Your task to perform on an android device: turn notification dots off Image 0: 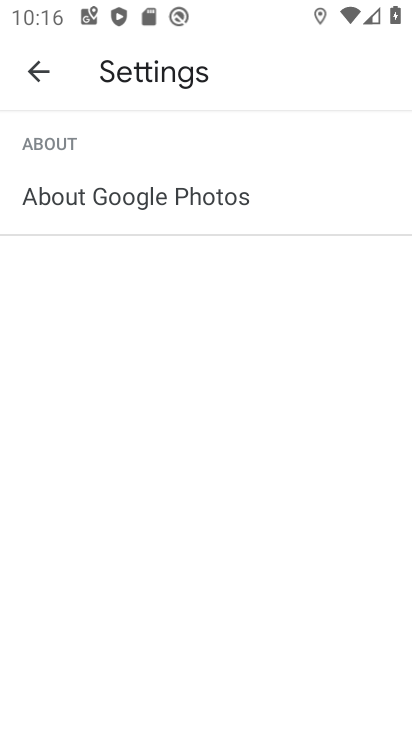
Step 0: press home button
Your task to perform on an android device: turn notification dots off Image 1: 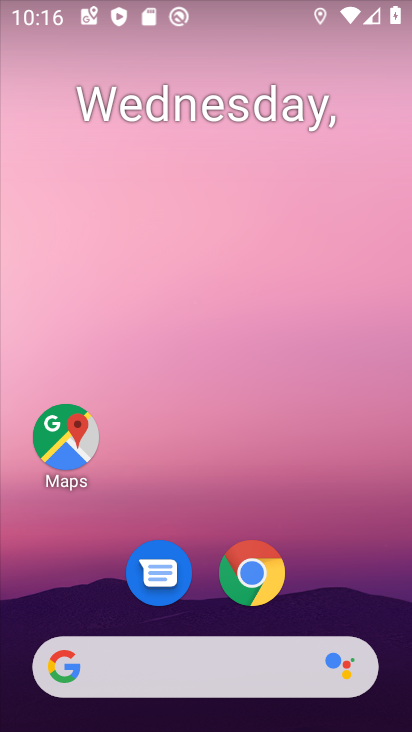
Step 1: drag from (157, 636) to (210, 164)
Your task to perform on an android device: turn notification dots off Image 2: 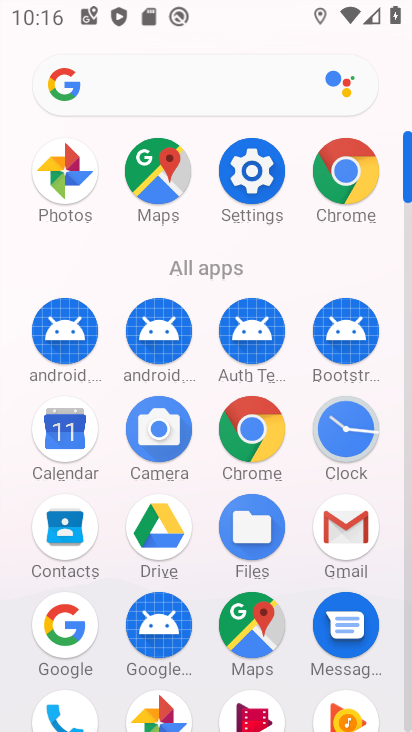
Step 2: click (248, 174)
Your task to perform on an android device: turn notification dots off Image 3: 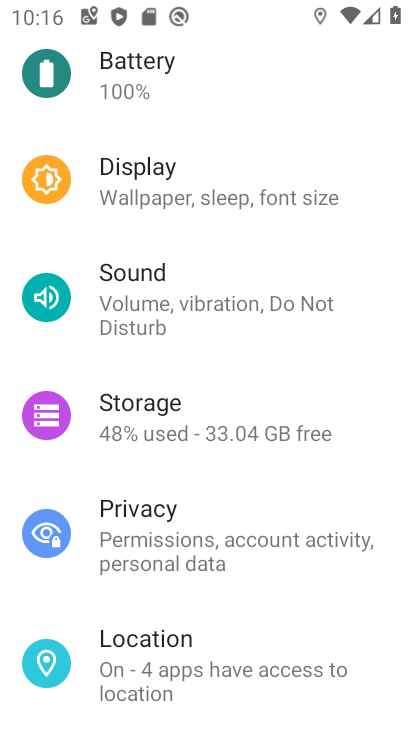
Step 3: drag from (261, 104) to (268, 518)
Your task to perform on an android device: turn notification dots off Image 4: 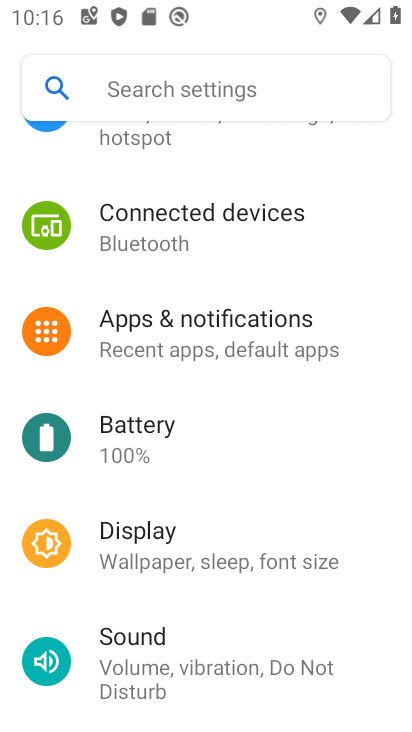
Step 4: click (217, 332)
Your task to perform on an android device: turn notification dots off Image 5: 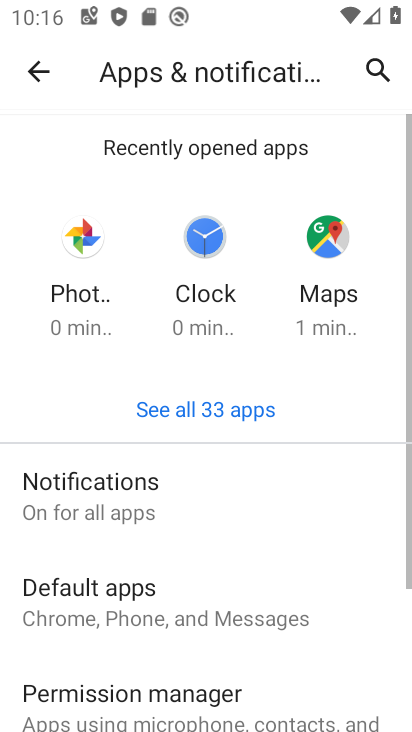
Step 5: click (116, 495)
Your task to perform on an android device: turn notification dots off Image 6: 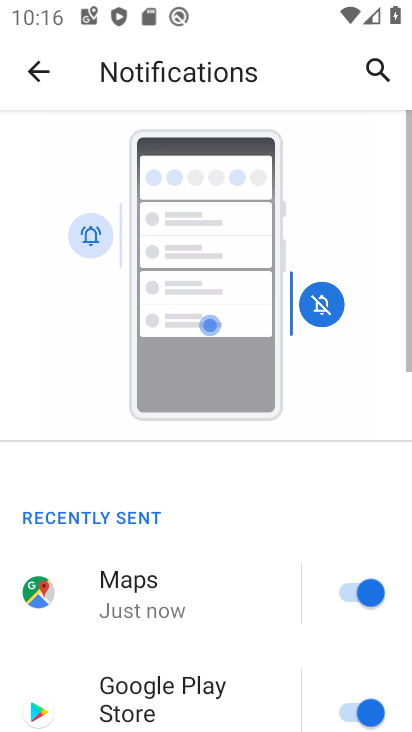
Step 6: drag from (163, 510) to (199, 282)
Your task to perform on an android device: turn notification dots off Image 7: 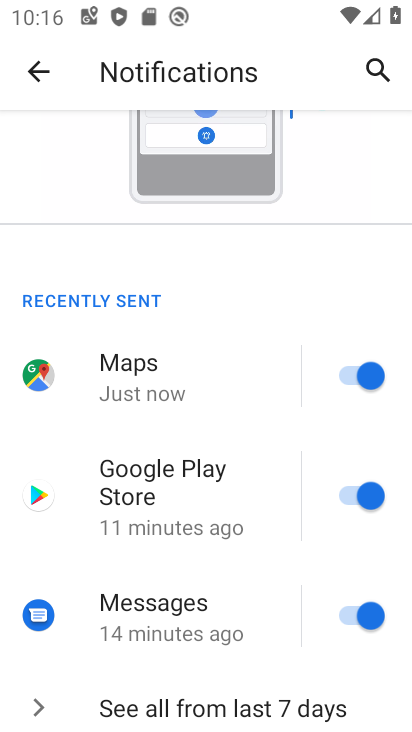
Step 7: drag from (100, 708) to (145, 288)
Your task to perform on an android device: turn notification dots off Image 8: 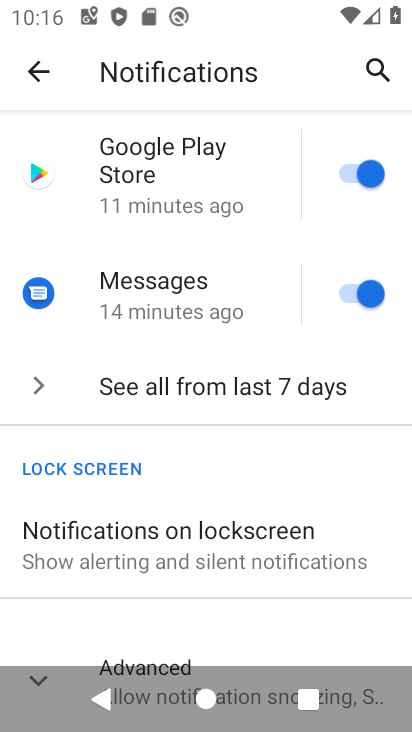
Step 8: drag from (171, 632) to (193, 272)
Your task to perform on an android device: turn notification dots off Image 9: 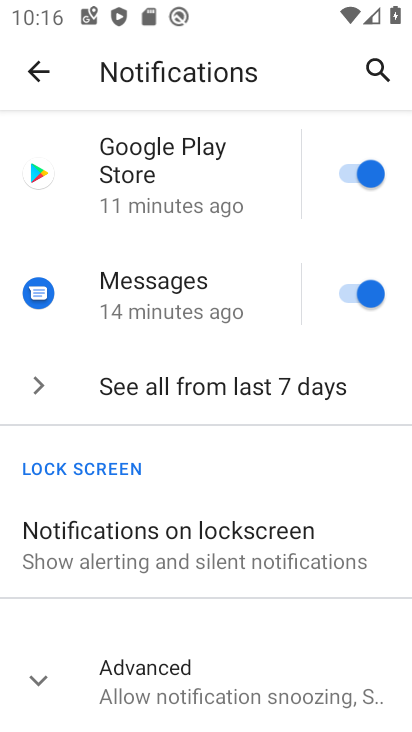
Step 9: click (146, 671)
Your task to perform on an android device: turn notification dots off Image 10: 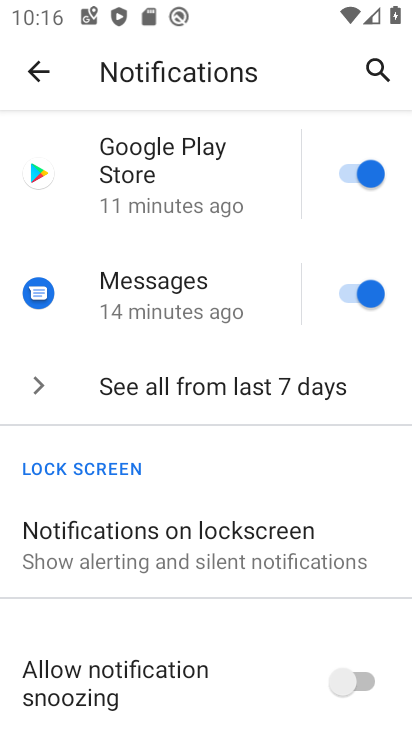
Step 10: drag from (211, 719) to (207, 309)
Your task to perform on an android device: turn notification dots off Image 11: 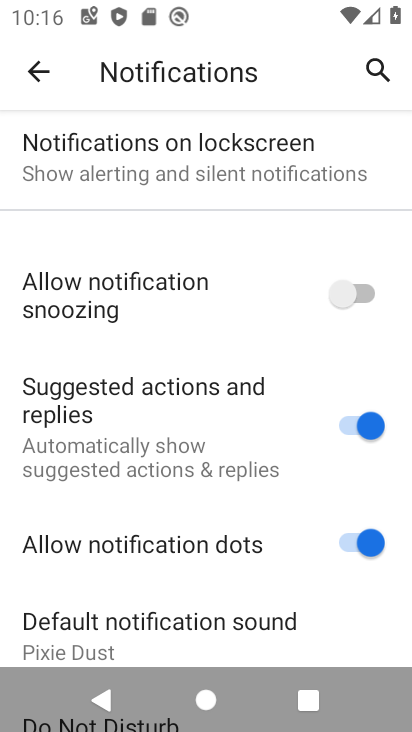
Step 11: click (356, 546)
Your task to perform on an android device: turn notification dots off Image 12: 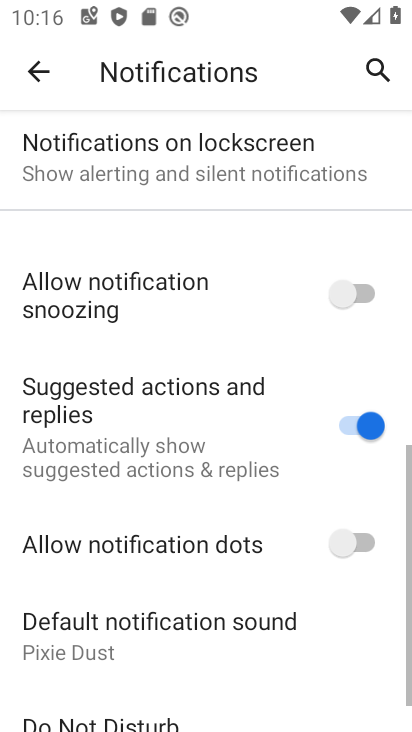
Step 12: task complete